Your task to perform on an android device: see tabs open on other devices in the chrome app Image 0: 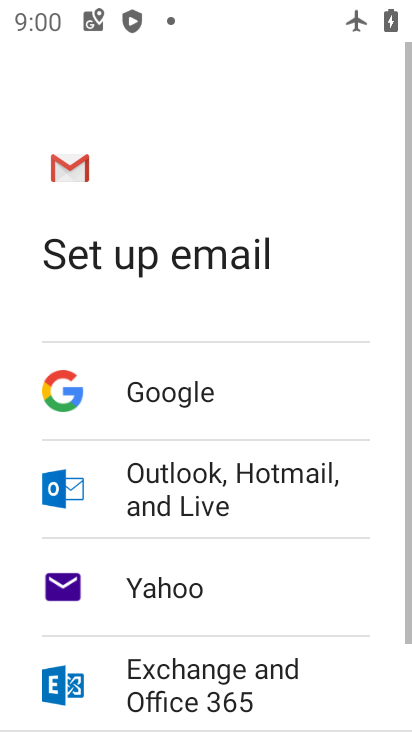
Step 0: press home button
Your task to perform on an android device: see tabs open on other devices in the chrome app Image 1: 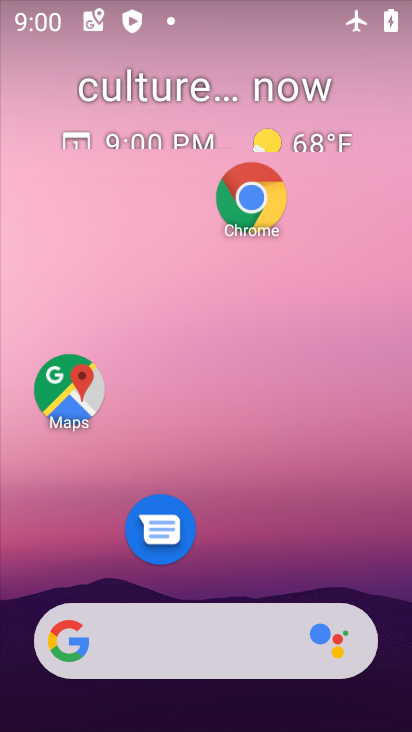
Step 1: click (231, 226)
Your task to perform on an android device: see tabs open on other devices in the chrome app Image 2: 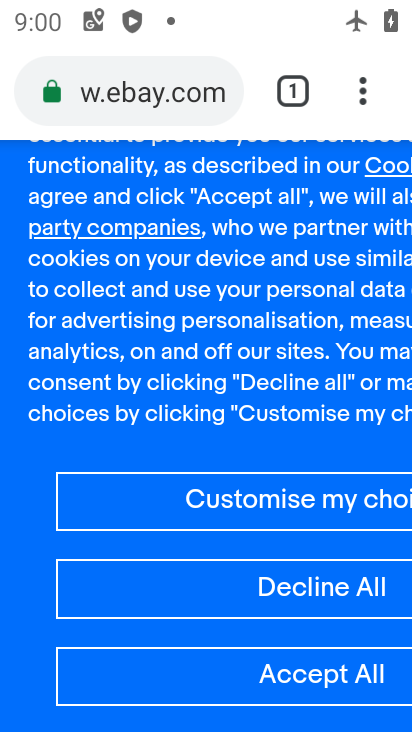
Step 2: click (363, 103)
Your task to perform on an android device: see tabs open on other devices in the chrome app Image 3: 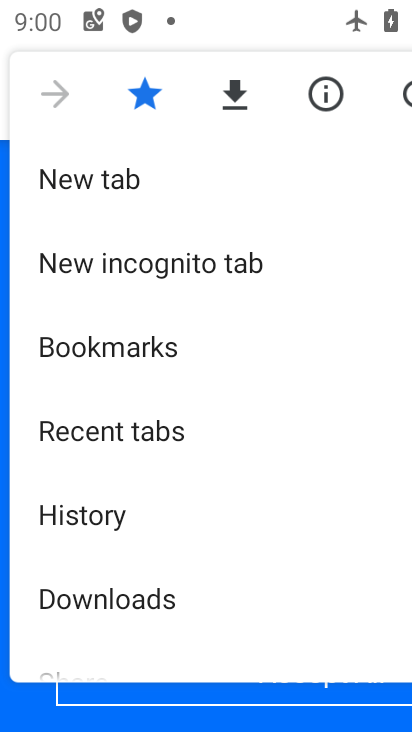
Step 3: drag from (159, 517) to (198, 323)
Your task to perform on an android device: see tabs open on other devices in the chrome app Image 4: 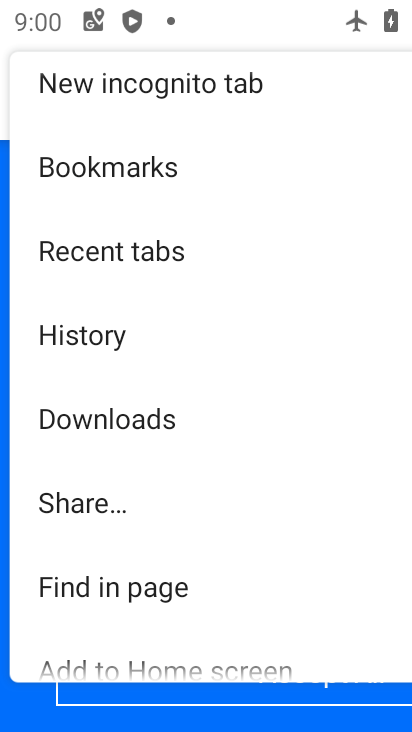
Step 4: drag from (193, 496) to (206, 325)
Your task to perform on an android device: see tabs open on other devices in the chrome app Image 5: 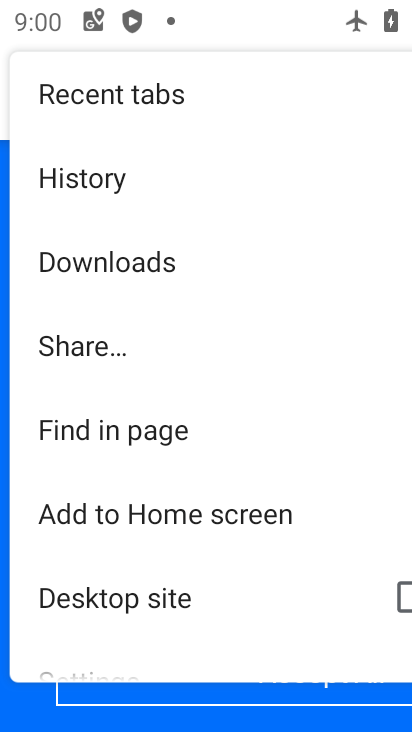
Step 5: click (201, 98)
Your task to perform on an android device: see tabs open on other devices in the chrome app Image 6: 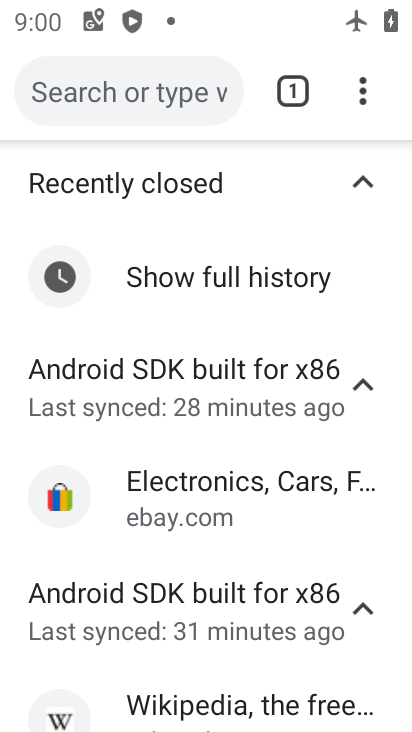
Step 6: task complete